Your task to perform on an android device: check out phone information Image 0: 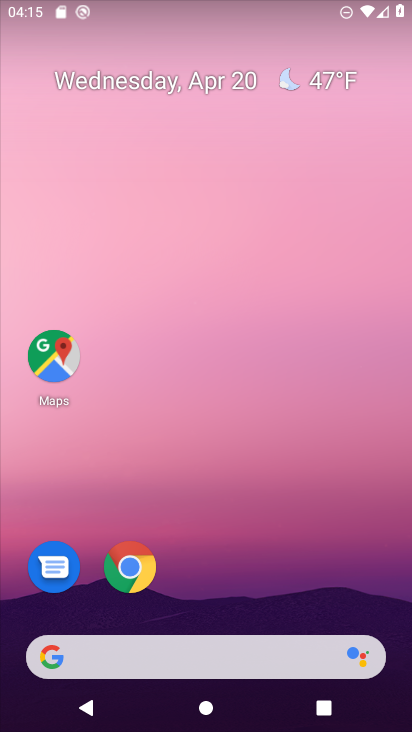
Step 0: click (302, 10)
Your task to perform on an android device: check out phone information Image 1: 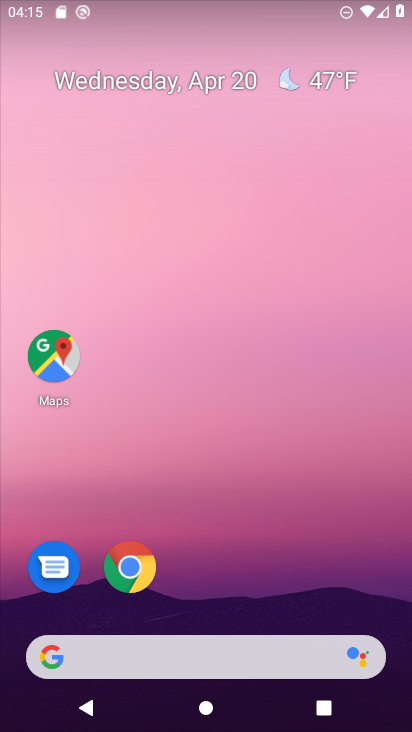
Step 1: drag from (302, 10) to (272, 611)
Your task to perform on an android device: check out phone information Image 2: 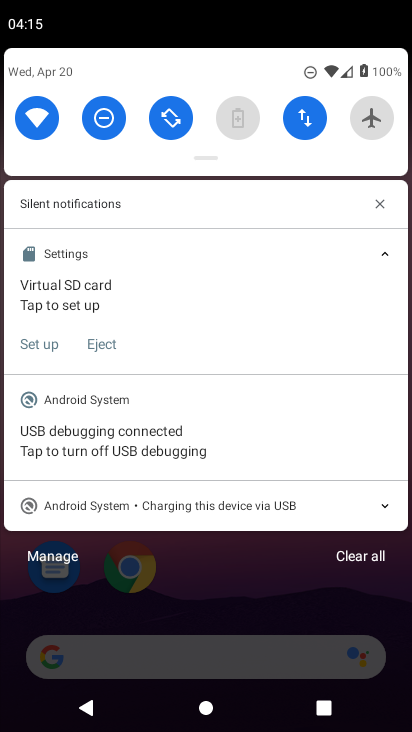
Step 2: drag from (261, 82) to (339, 605)
Your task to perform on an android device: check out phone information Image 3: 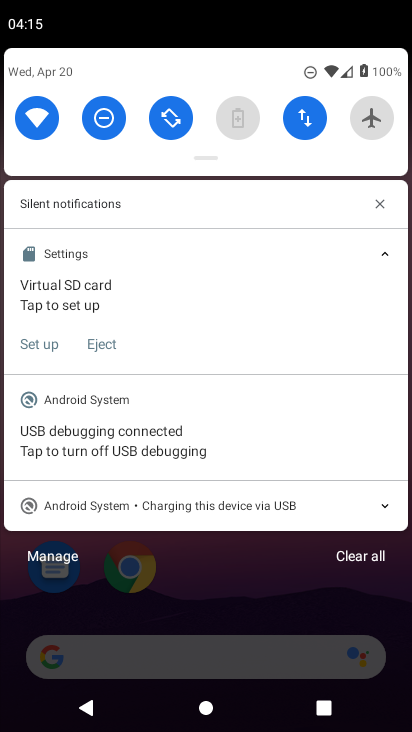
Step 3: drag from (238, 91) to (231, 499)
Your task to perform on an android device: check out phone information Image 4: 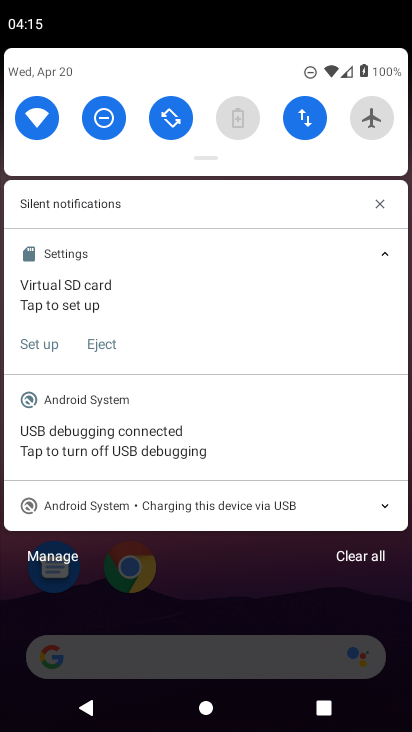
Step 4: drag from (205, 83) to (169, 689)
Your task to perform on an android device: check out phone information Image 5: 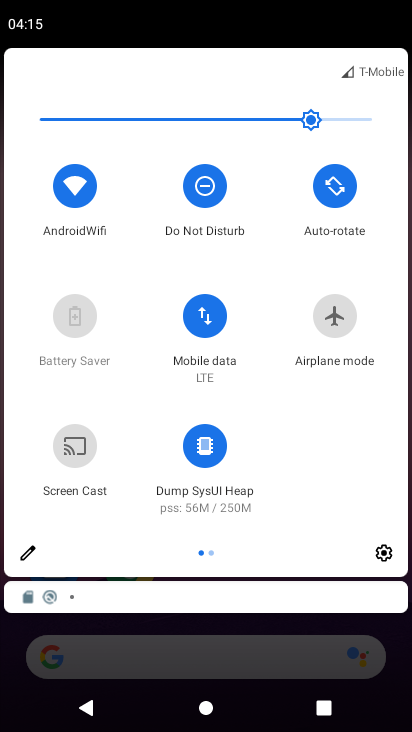
Step 5: click (384, 557)
Your task to perform on an android device: check out phone information Image 6: 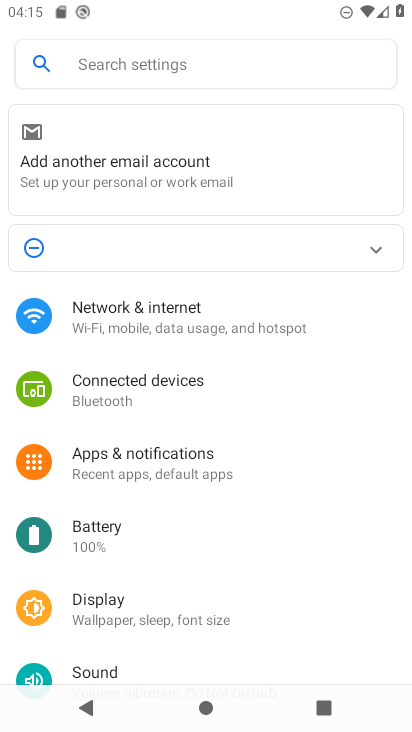
Step 6: drag from (171, 603) to (208, 318)
Your task to perform on an android device: check out phone information Image 7: 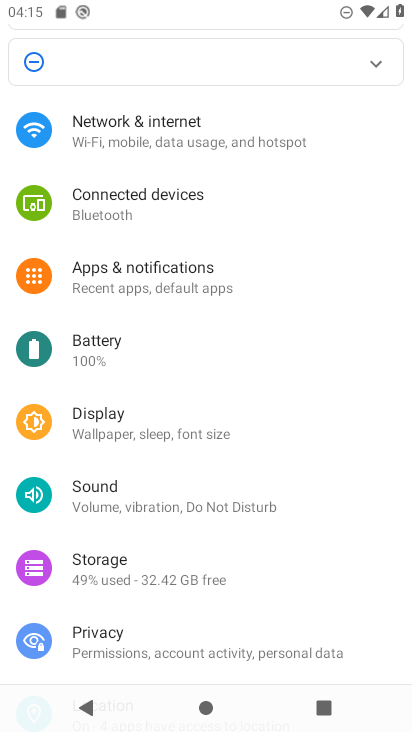
Step 7: drag from (113, 618) to (167, 160)
Your task to perform on an android device: check out phone information Image 8: 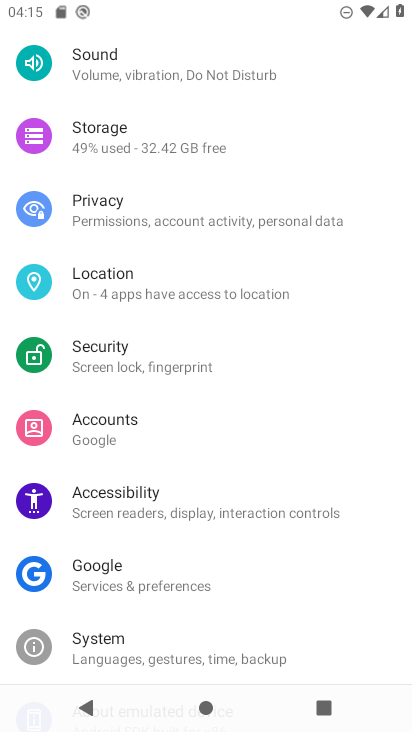
Step 8: drag from (212, 450) to (189, 130)
Your task to perform on an android device: check out phone information Image 9: 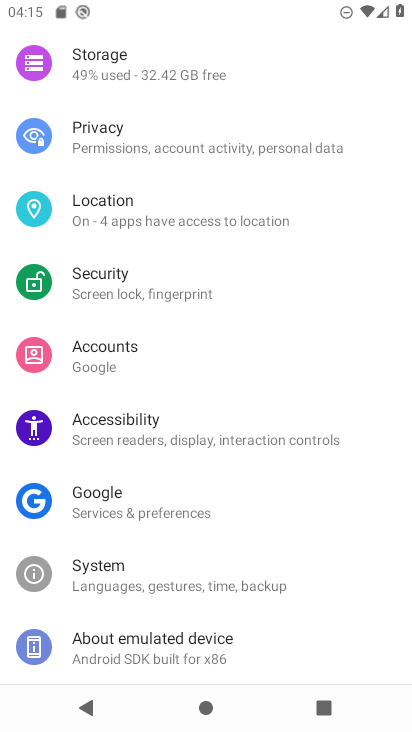
Step 9: click (148, 645)
Your task to perform on an android device: check out phone information Image 10: 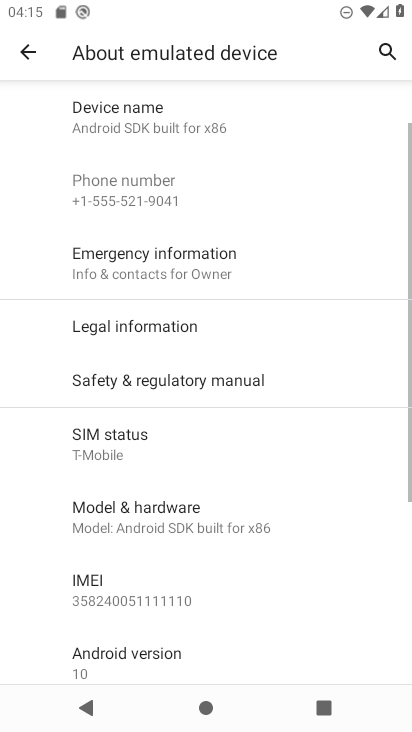
Step 10: task complete